Your task to perform on an android device: Open my contact list Image 0: 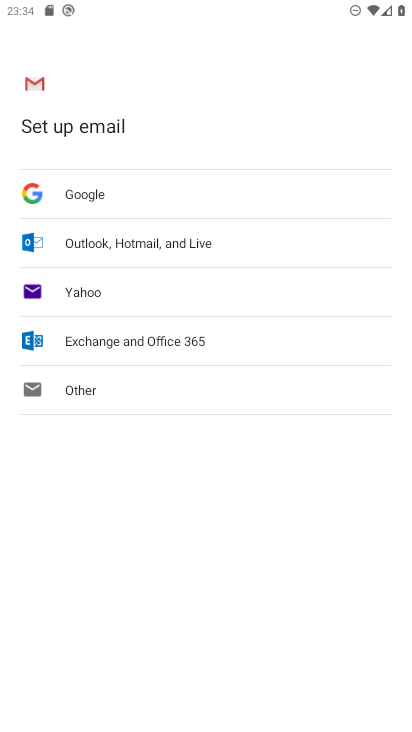
Step 0: press home button
Your task to perform on an android device: Open my contact list Image 1: 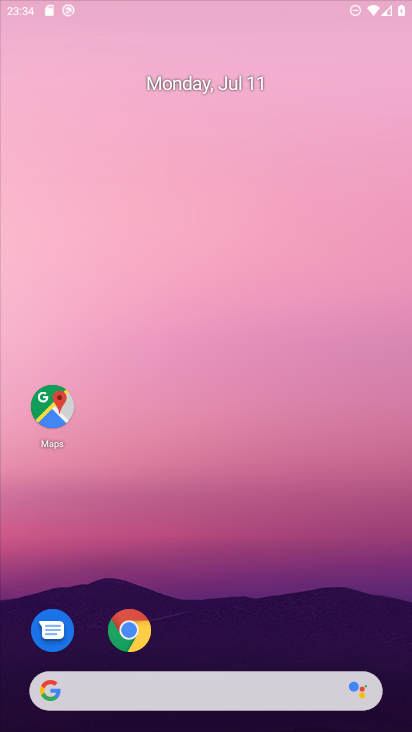
Step 1: drag from (235, 623) to (283, 127)
Your task to perform on an android device: Open my contact list Image 2: 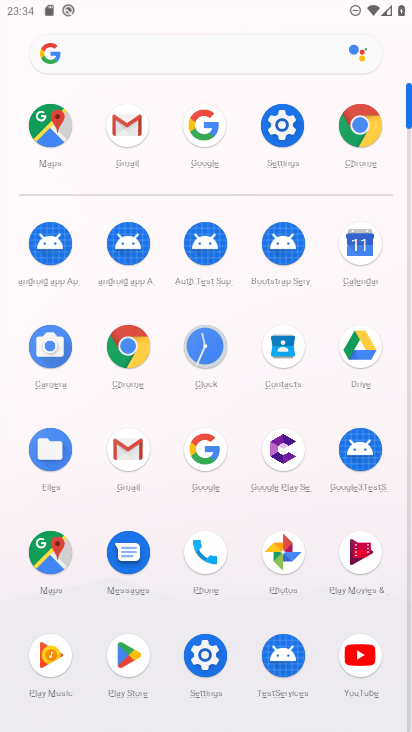
Step 2: click (281, 349)
Your task to perform on an android device: Open my contact list Image 3: 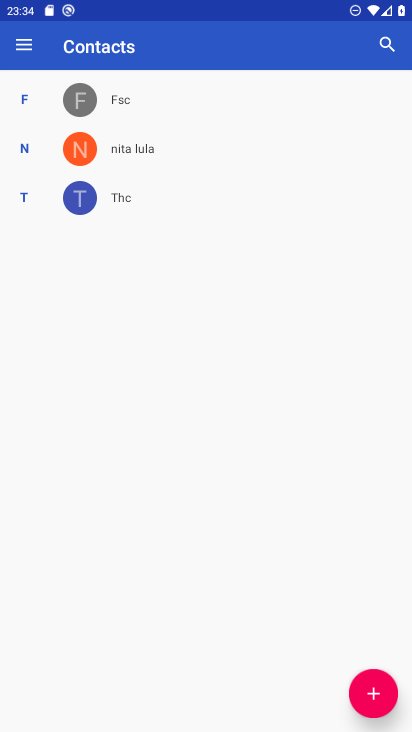
Step 3: task complete